Your task to perform on an android device: Check the news Image 0: 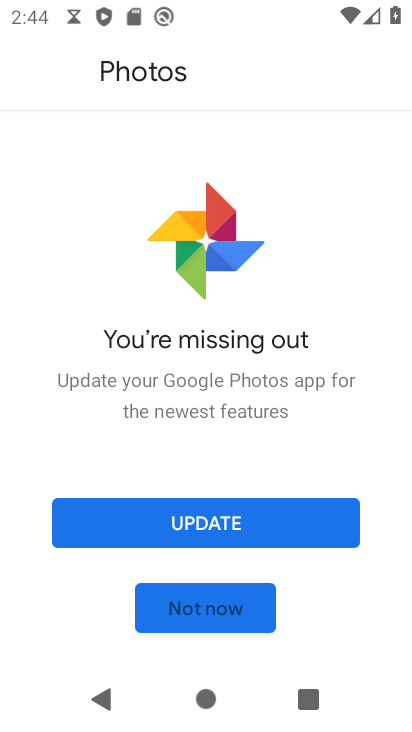
Step 0: press home button
Your task to perform on an android device: Check the news Image 1: 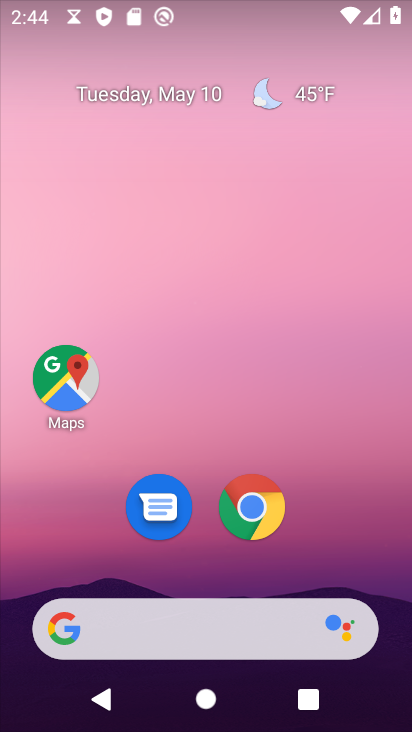
Step 1: click (270, 498)
Your task to perform on an android device: Check the news Image 2: 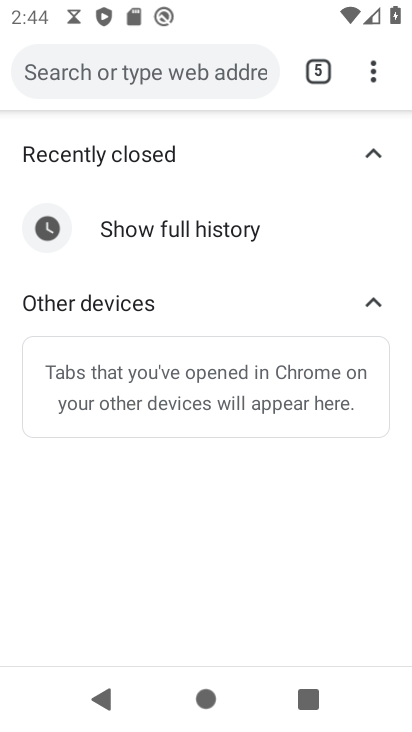
Step 2: click (322, 70)
Your task to perform on an android device: Check the news Image 3: 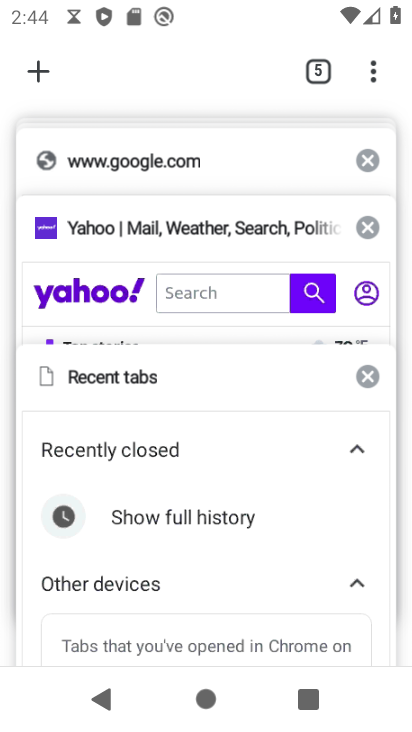
Step 3: click (156, 483)
Your task to perform on an android device: Check the news Image 4: 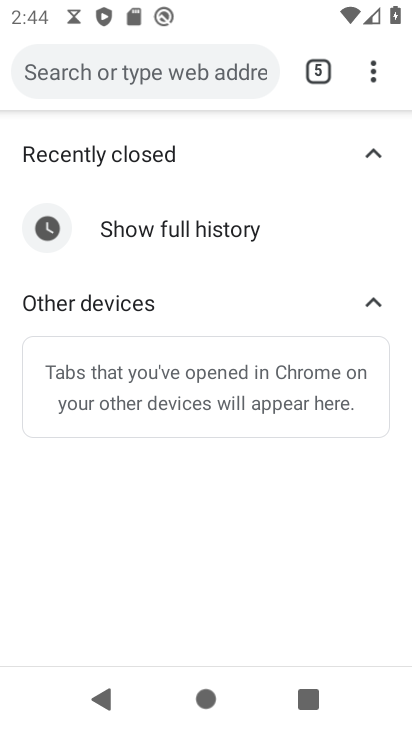
Step 4: click (127, 76)
Your task to perform on an android device: Check the news Image 5: 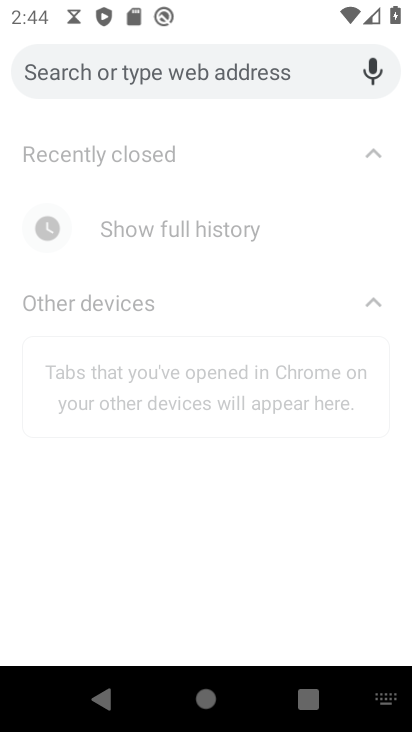
Step 5: type "news"
Your task to perform on an android device: Check the news Image 6: 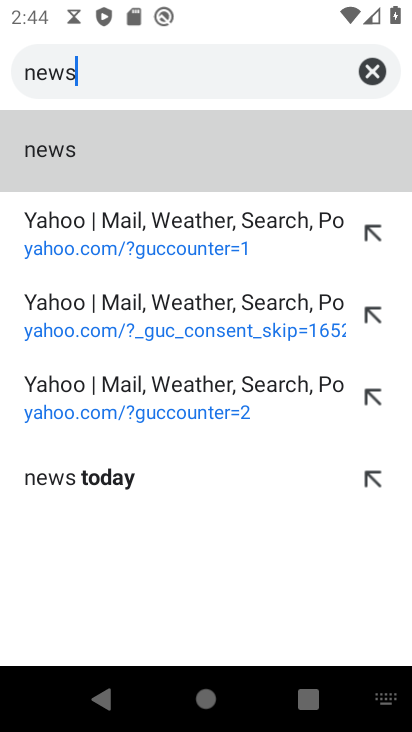
Step 6: click (95, 148)
Your task to perform on an android device: Check the news Image 7: 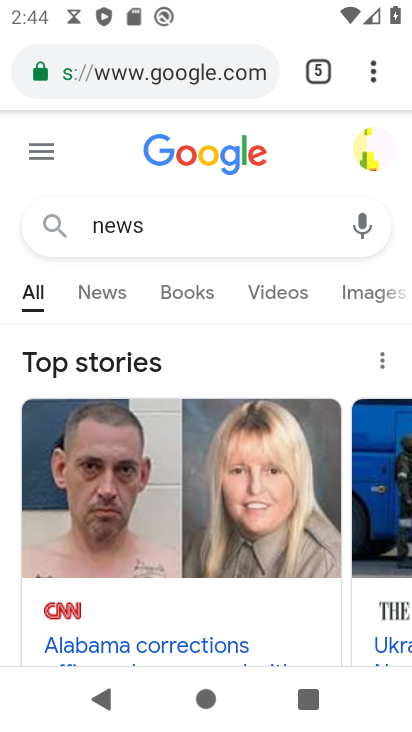
Step 7: click (117, 274)
Your task to perform on an android device: Check the news Image 8: 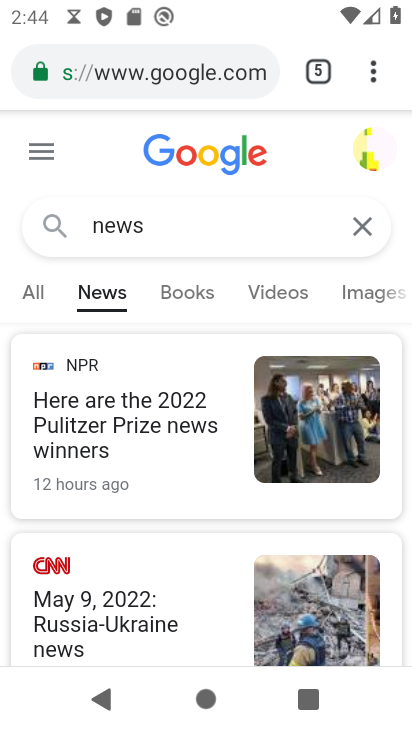
Step 8: task complete